Your task to perform on an android device: turn off data saver in the chrome app Image 0: 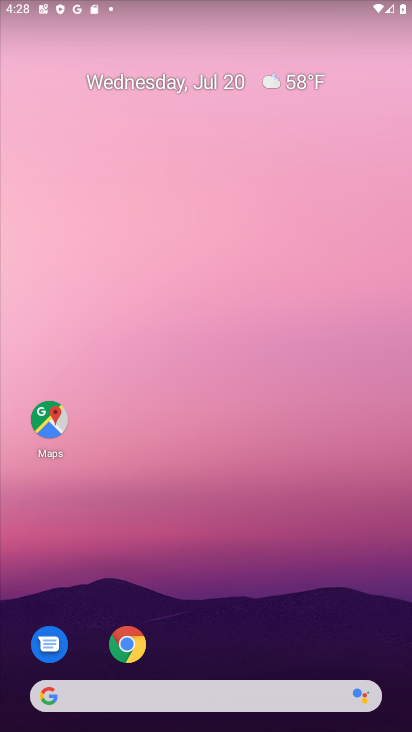
Step 0: press home button
Your task to perform on an android device: turn off data saver in the chrome app Image 1: 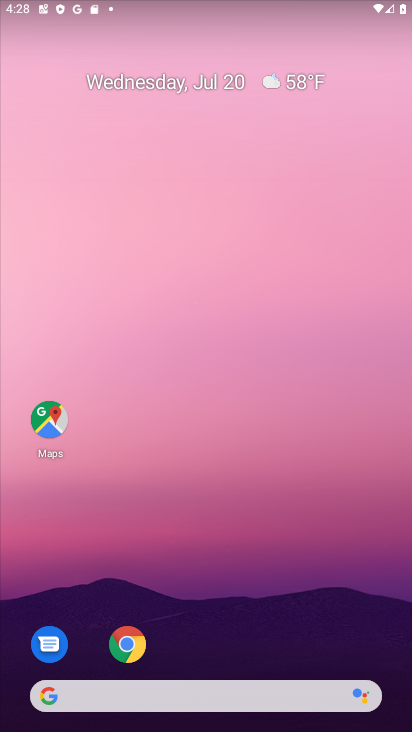
Step 1: drag from (225, 137) to (277, 34)
Your task to perform on an android device: turn off data saver in the chrome app Image 2: 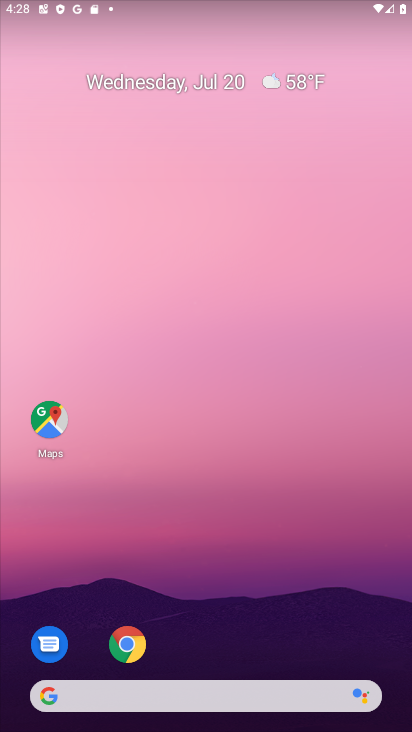
Step 2: drag from (253, 650) to (292, 28)
Your task to perform on an android device: turn off data saver in the chrome app Image 3: 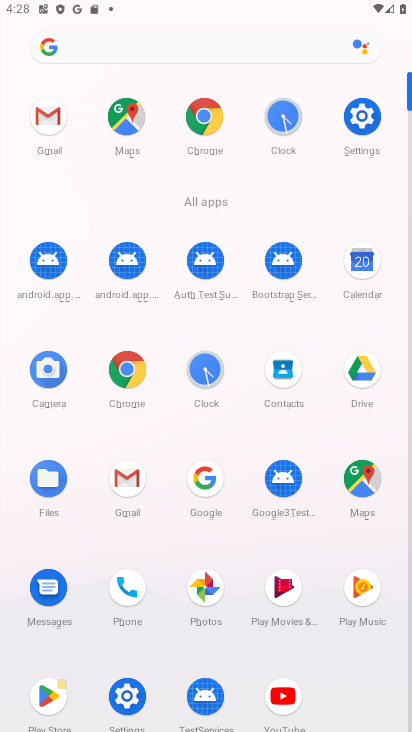
Step 3: click (198, 120)
Your task to perform on an android device: turn off data saver in the chrome app Image 4: 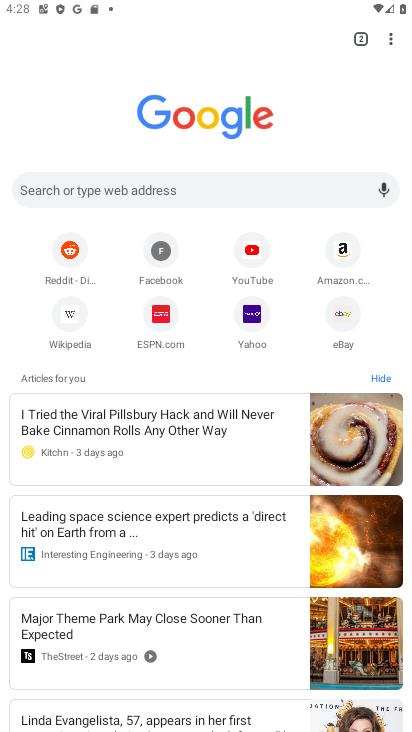
Step 4: drag from (392, 39) to (230, 322)
Your task to perform on an android device: turn off data saver in the chrome app Image 5: 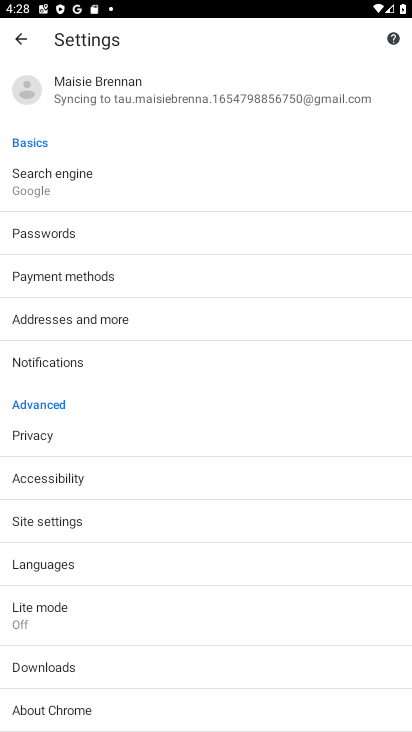
Step 5: click (42, 612)
Your task to perform on an android device: turn off data saver in the chrome app Image 6: 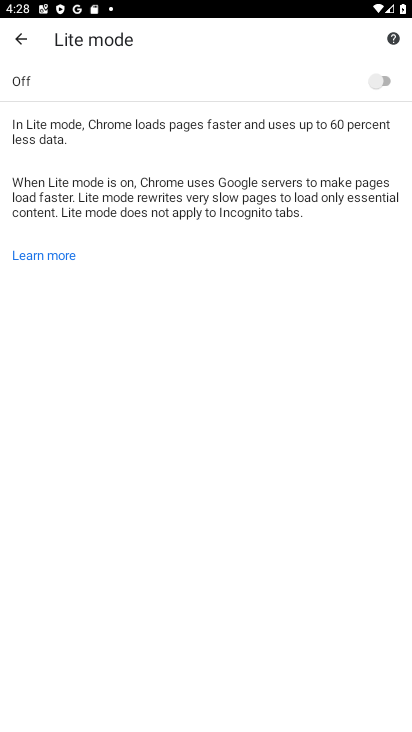
Step 6: task complete